Your task to perform on an android device: Do I have any events today? Image 0: 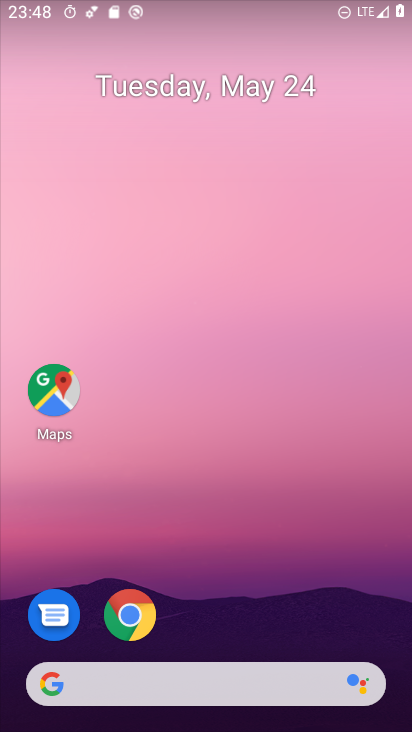
Step 0: drag from (268, 702) to (266, 135)
Your task to perform on an android device: Do I have any events today? Image 1: 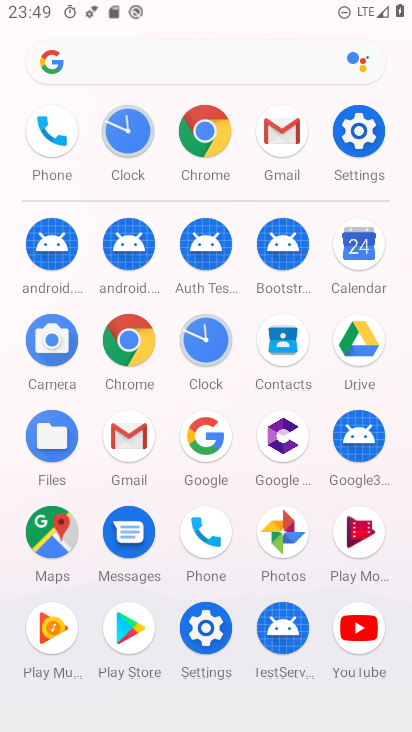
Step 1: click (354, 252)
Your task to perform on an android device: Do I have any events today? Image 2: 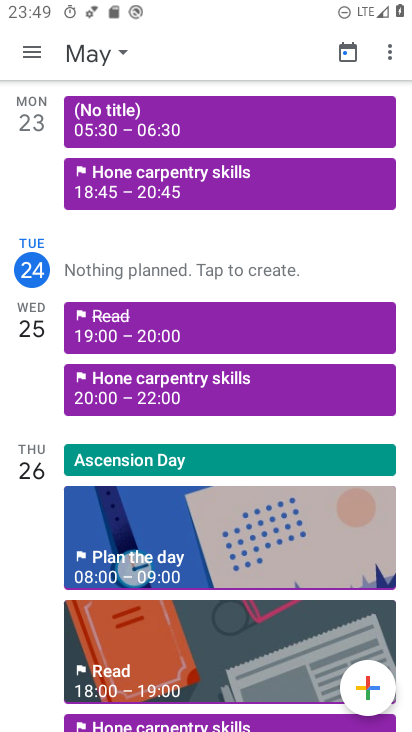
Step 2: task complete